Your task to perform on an android device: Empty the shopping cart on target. Search for "razer deathadder" on target, select the first entry, add it to the cart, then select checkout. Image 0: 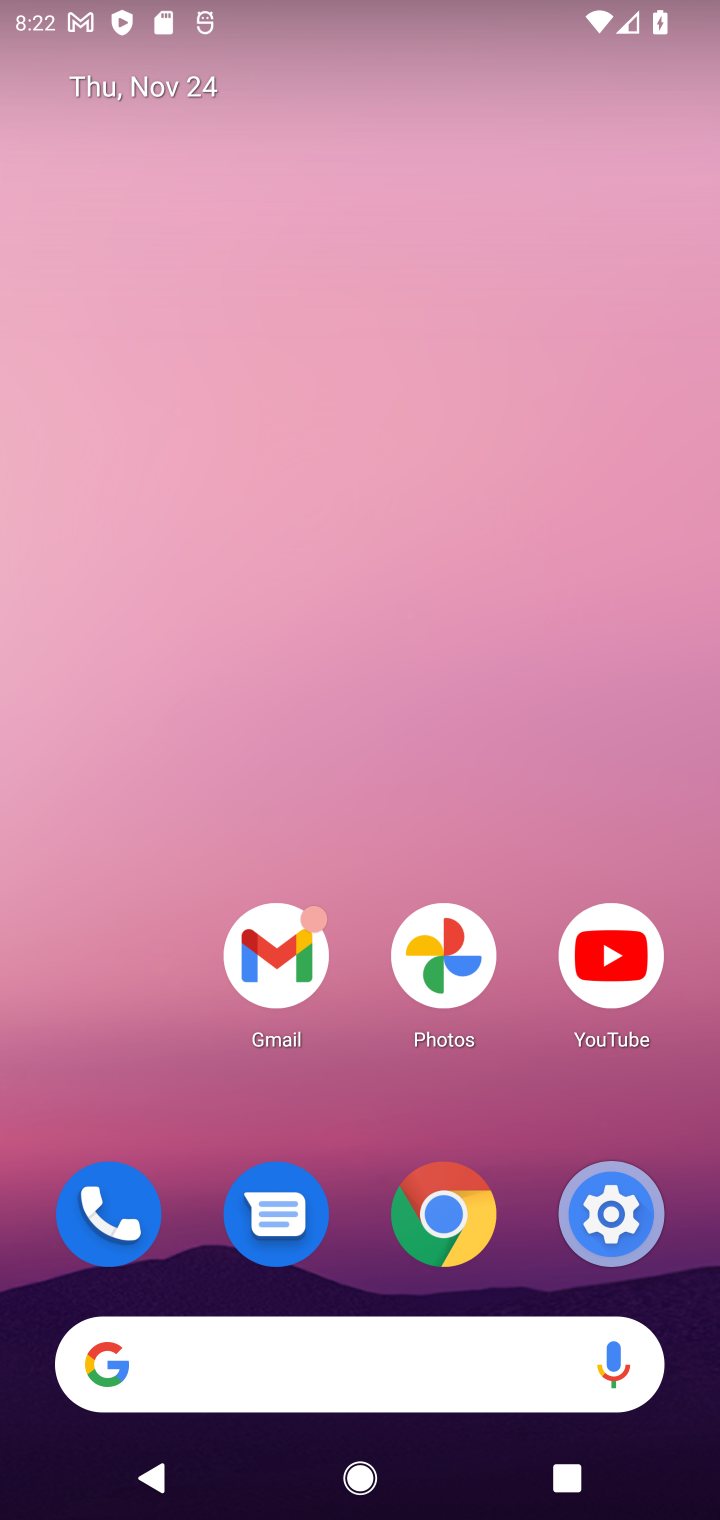
Step 0: click (284, 1338)
Your task to perform on an android device: Empty the shopping cart on target. Search for "razer deathadder" on target, select the first entry, add it to the cart, then select checkout. Image 1: 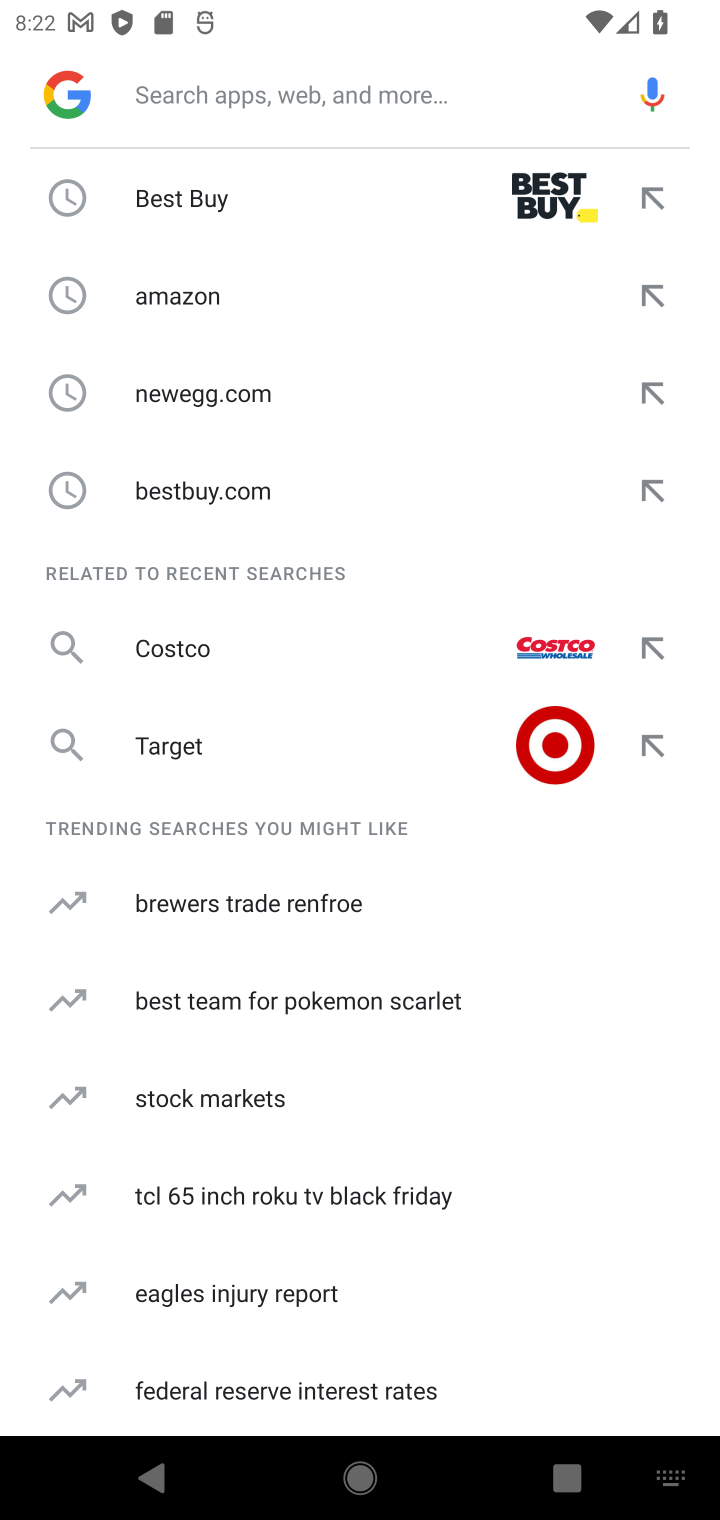
Step 1: type "razer dfeathadder"
Your task to perform on an android device: Empty the shopping cart on target. Search for "razer deathadder" on target, select the first entry, add it to the cart, then select checkout. Image 2: 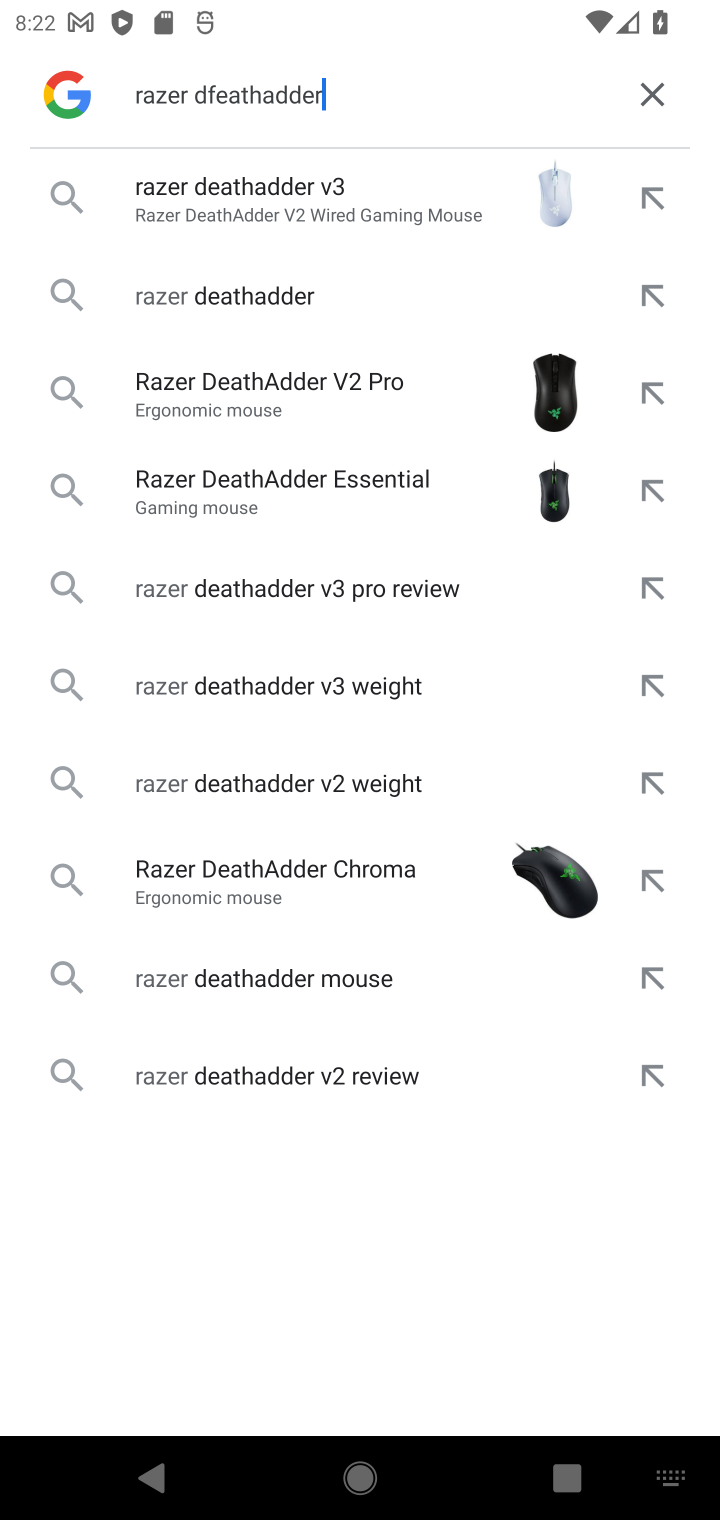
Step 2: click (369, 238)
Your task to perform on an android device: Empty the shopping cart on target. Search for "razer deathadder" on target, select the first entry, add it to the cart, then select checkout. Image 3: 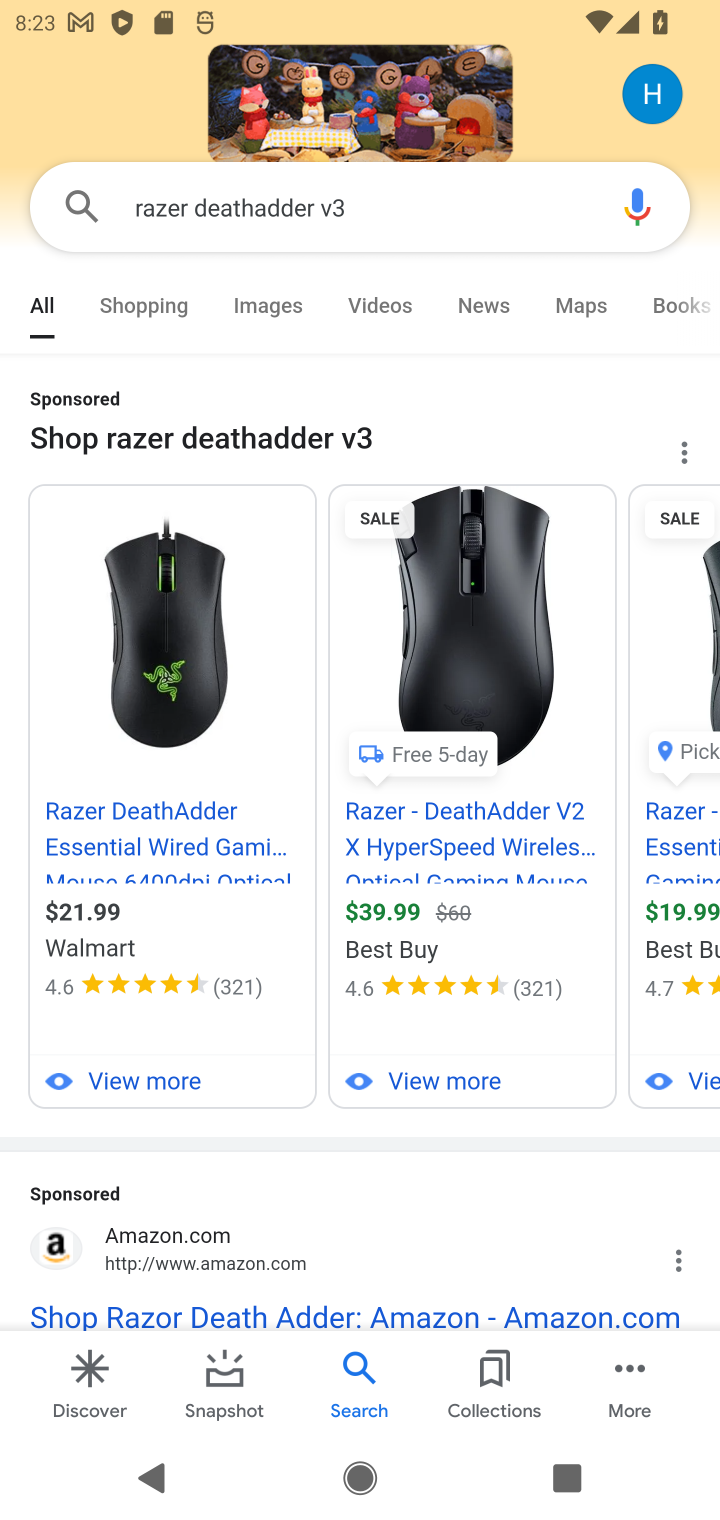
Step 3: task complete